Your task to perform on an android device: Go to network settings Image 0: 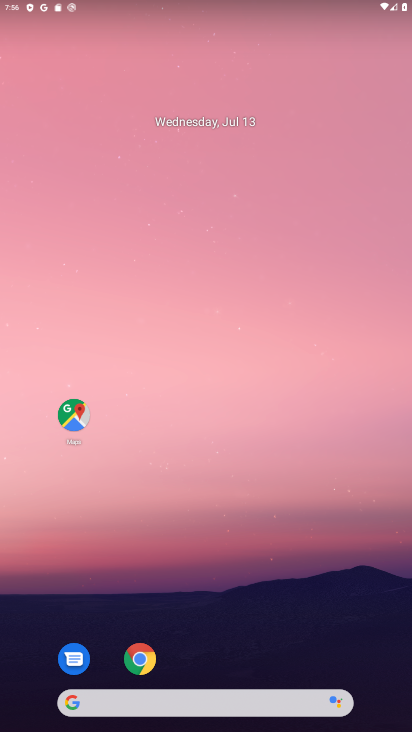
Step 0: drag from (305, 640) to (297, 104)
Your task to perform on an android device: Go to network settings Image 1: 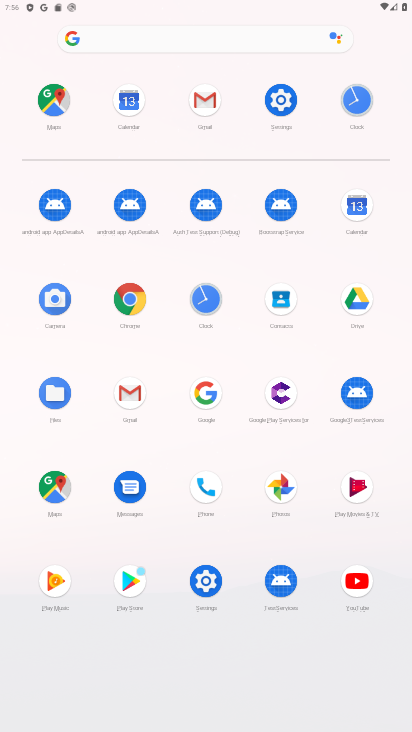
Step 1: click (284, 99)
Your task to perform on an android device: Go to network settings Image 2: 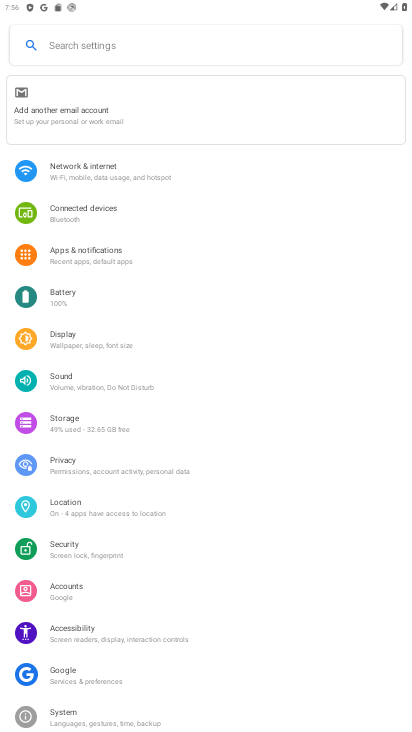
Step 2: click (235, 188)
Your task to perform on an android device: Go to network settings Image 3: 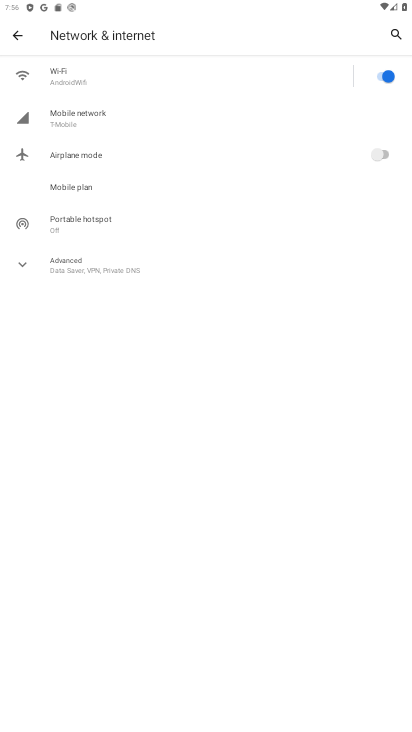
Step 3: task complete